Your task to perform on an android device: Open Google Maps and go to "Timeline" Image 0: 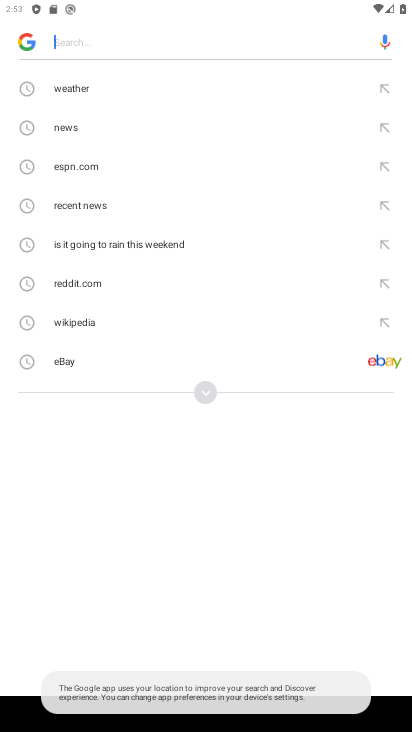
Step 0: press home button
Your task to perform on an android device: Open Google Maps and go to "Timeline" Image 1: 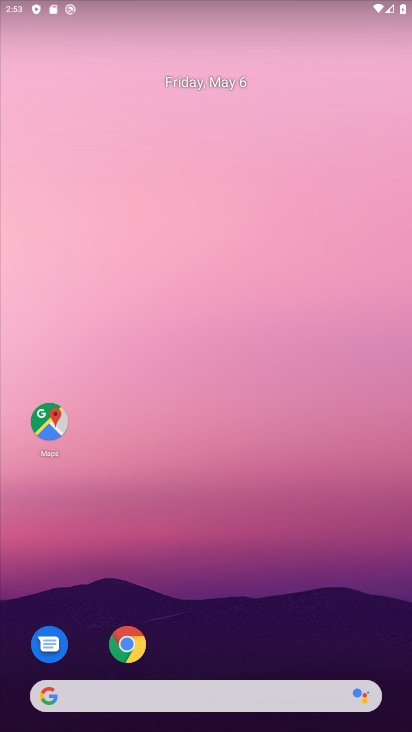
Step 1: drag from (205, 593) to (205, 317)
Your task to perform on an android device: Open Google Maps and go to "Timeline" Image 2: 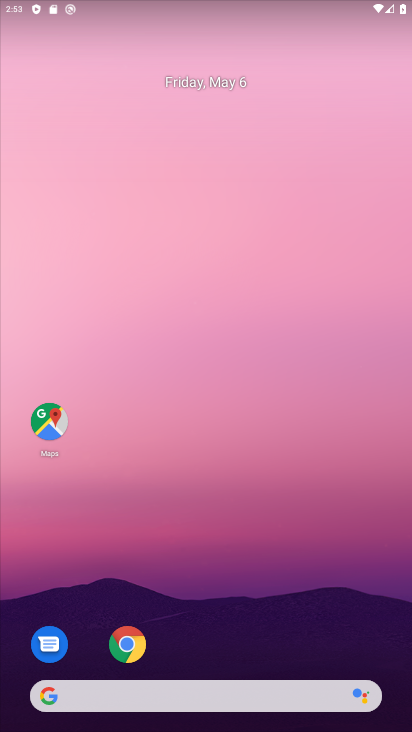
Step 2: drag from (232, 727) to (235, 320)
Your task to perform on an android device: Open Google Maps and go to "Timeline" Image 3: 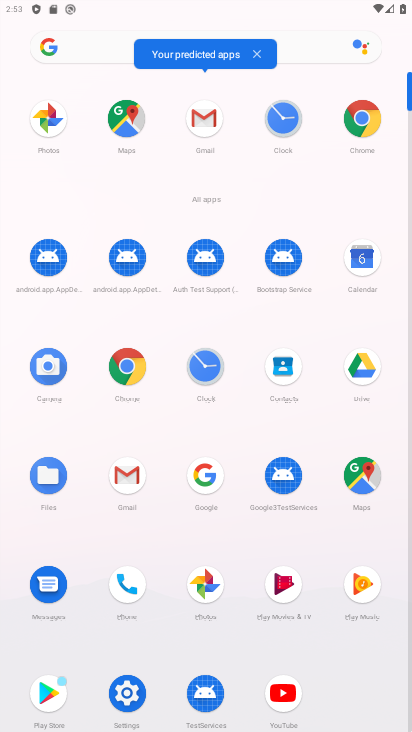
Step 3: click (364, 471)
Your task to perform on an android device: Open Google Maps and go to "Timeline" Image 4: 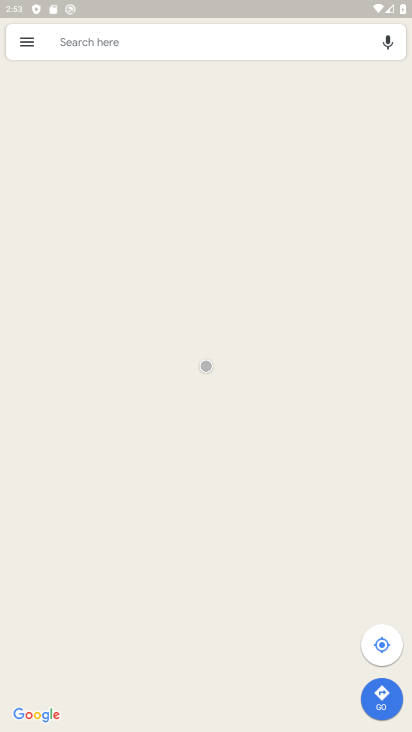
Step 4: click (17, 38)
Your task to perform on an android device: Open Google Maps and go to "Timeline" Image 5: 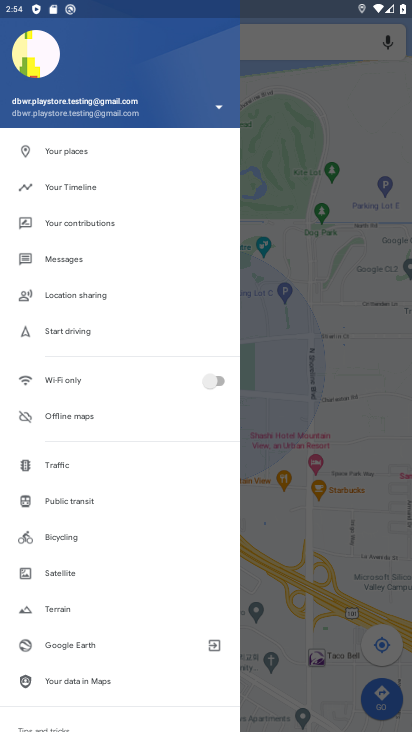
Step 5: click (70, 184)
Your task to perform on an android device: Open Google Maps and go to "Timeline" Image 6: 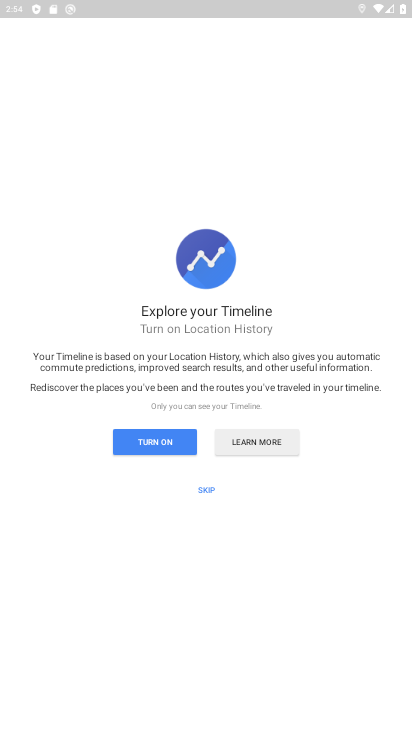
Step 6: click (206, 486)
Your task to perform on an android device: Open Google Maps and go to "Timeline" Image 7: 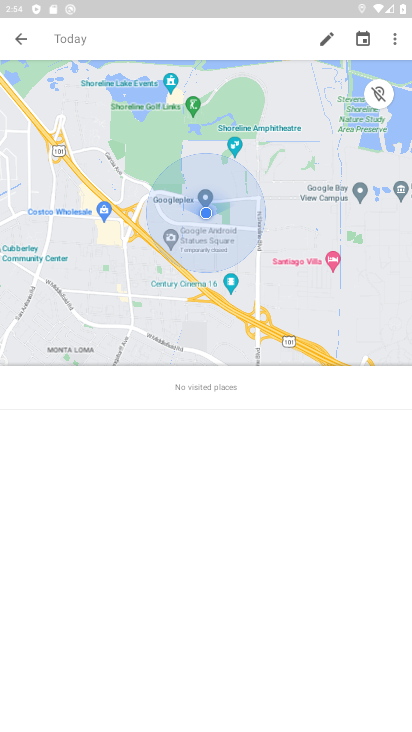
Step 7: task complete